Your task to perform on an android device: Open Reddit.com Image 0: 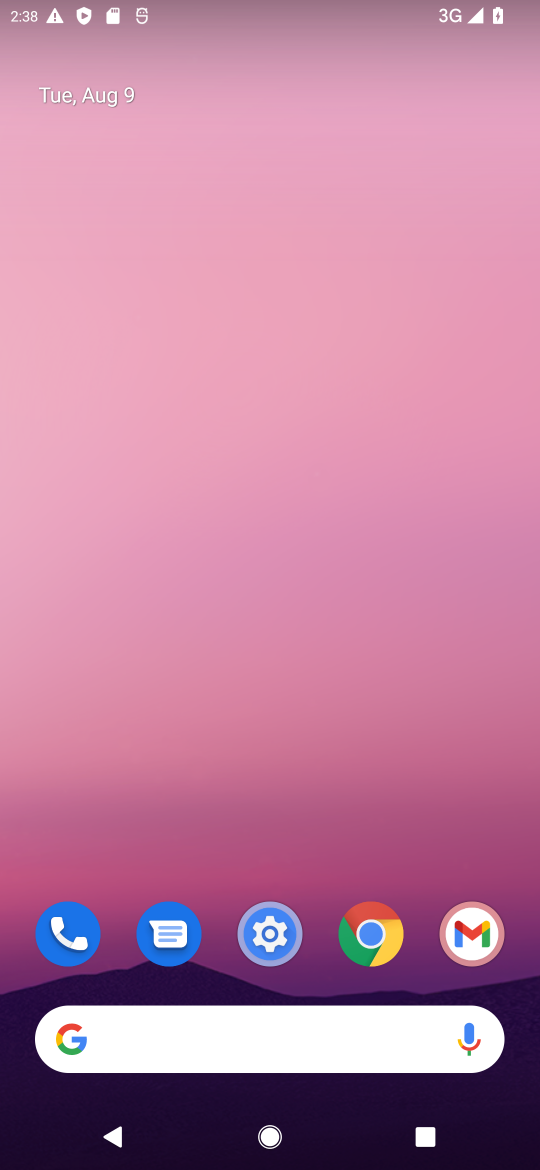
Step 0: drag from (319, 992) to (366, 47)
Your task to perform on an android device: Open Reddit.com Image 1: 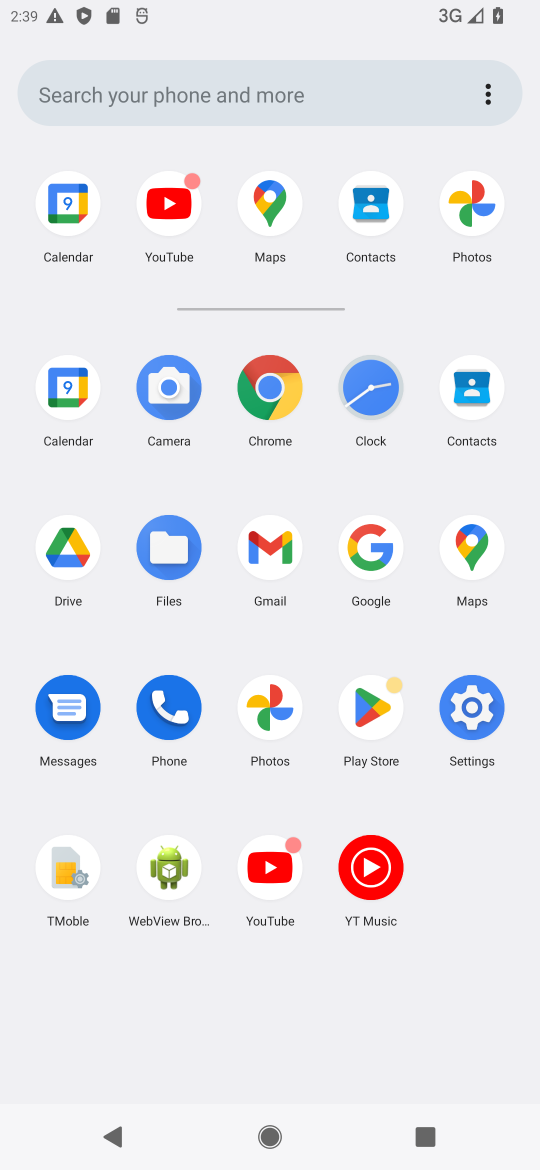
Step 1: click (262, 404)
Your task to perform on an android device: Open Reddit.com Image 2: 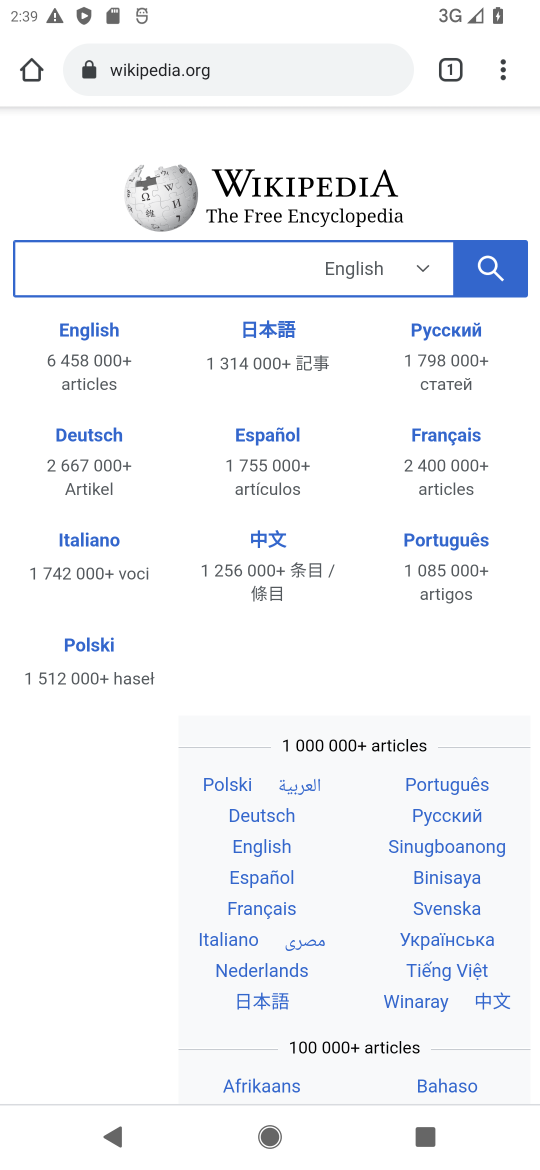
Step 2: click (251, 76)
Your task to perform on an android device: Open Reddit.com Image 3: 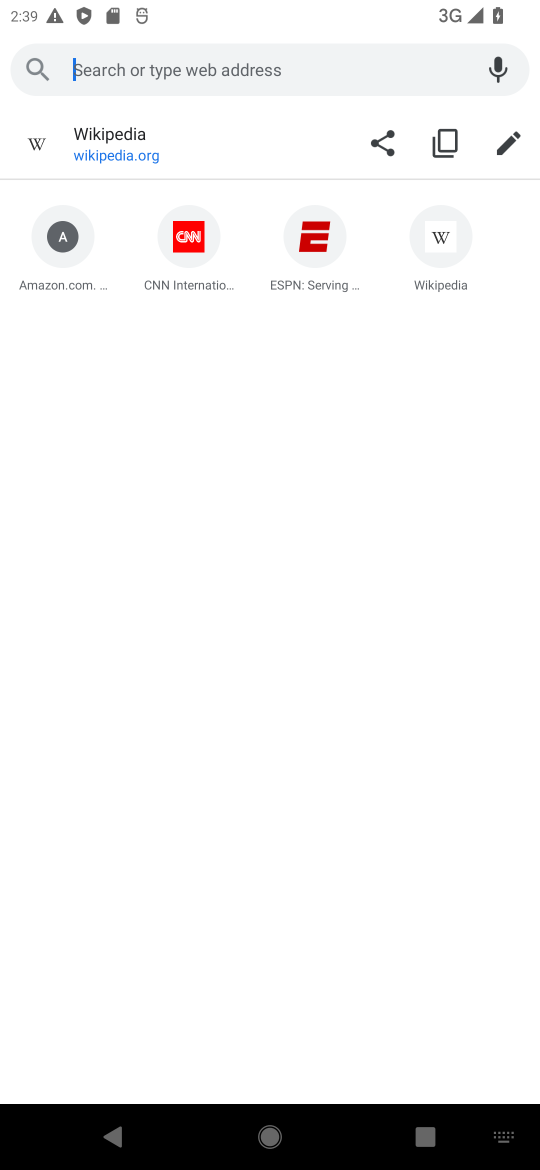
Step 3: type "reddit.com"
Your task to perform on an android device: Open Reddit.com Image 4: 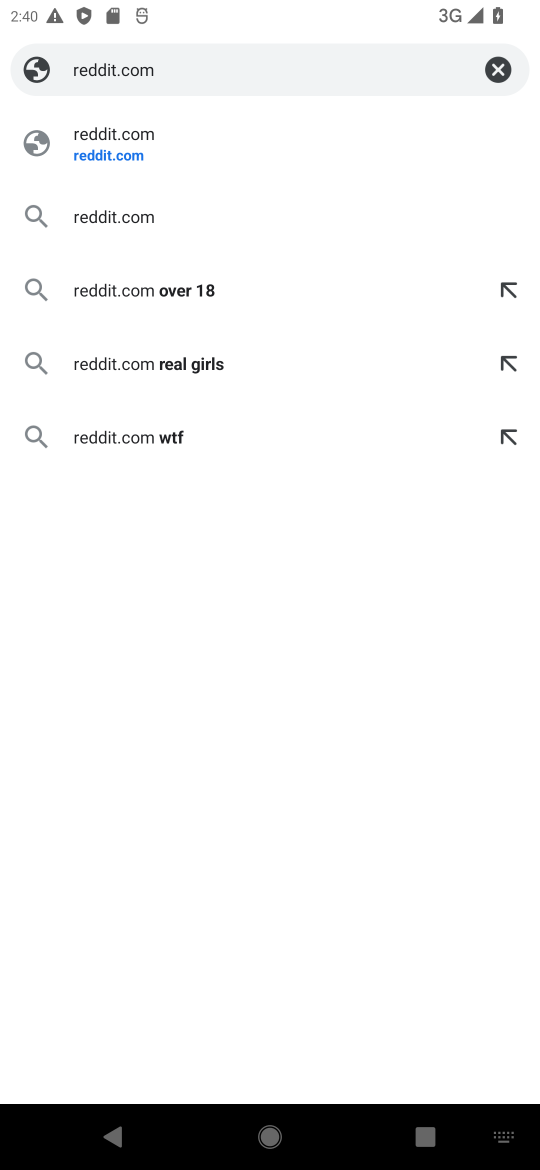
Step 4: click (262, 122)
Your task to perform on an android device: Open Reddit.com Image 5: 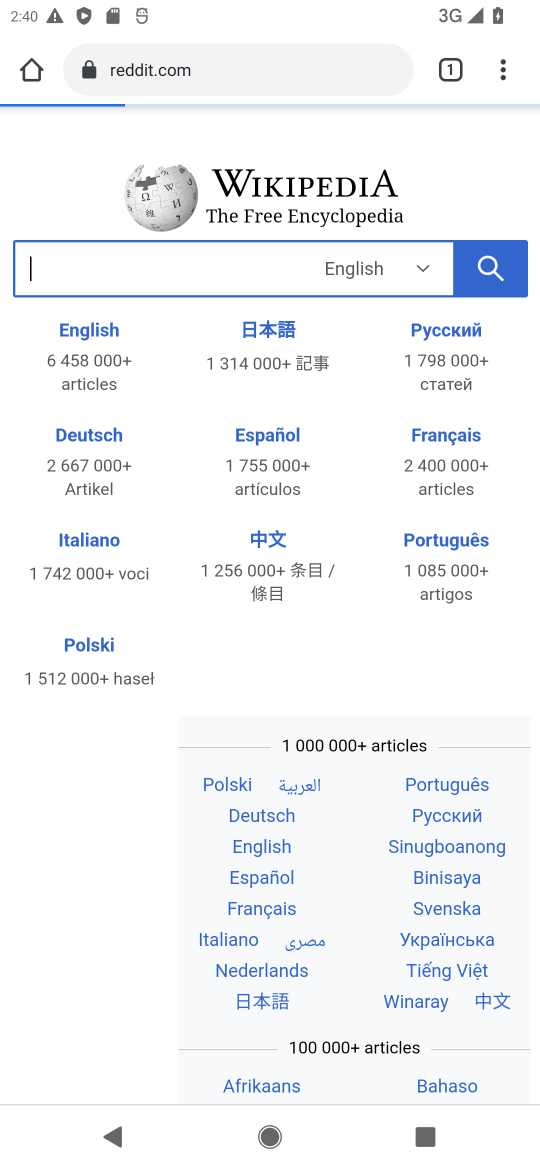
Step 5: task complete